Your task to perform on an android device: turn off data saver in the chrome app Image 0: 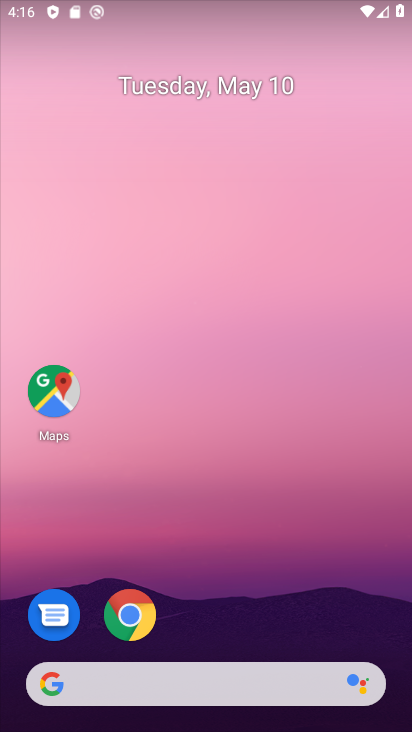
Step 0: click (139, 624)
Your task to perform on an android device: turn off data saver in the chrome app Image 1: 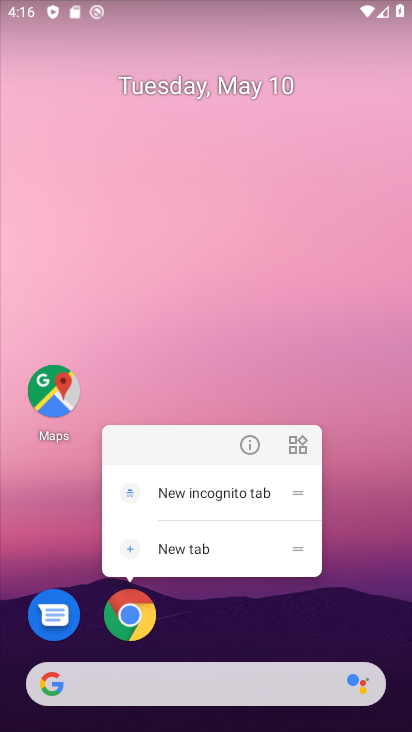
Step 1: click (139, 624)
Your task to perform on an android device: turn off data saver in the chrome app Image 2: 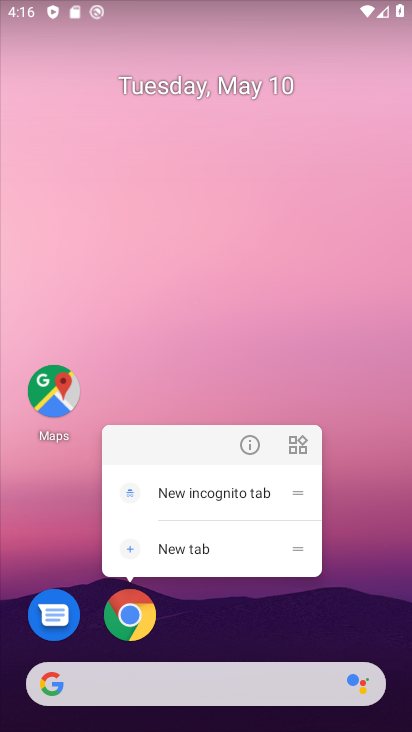
Step 2: click (122, 623)
Your task to perform on an android device: turn off data saver in the chrome app Image 3: 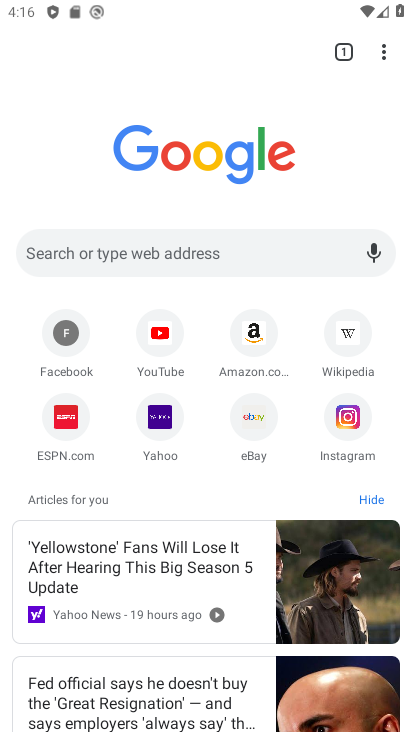
Step 3: drag from (391, 60) to (278, 444)
Your task to perform on an android device: turn off data saver in the chrome app Image 4: 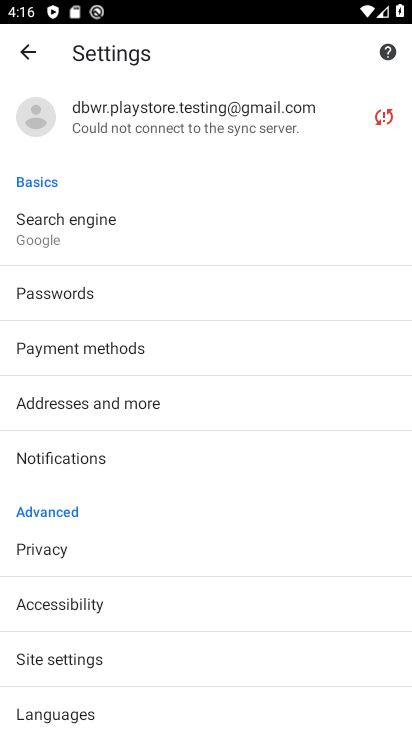
Step 4: drag from (155, 639) to (234, 412)
Your task to perform on an android device: turn off data saver in the chrome app Image 5: 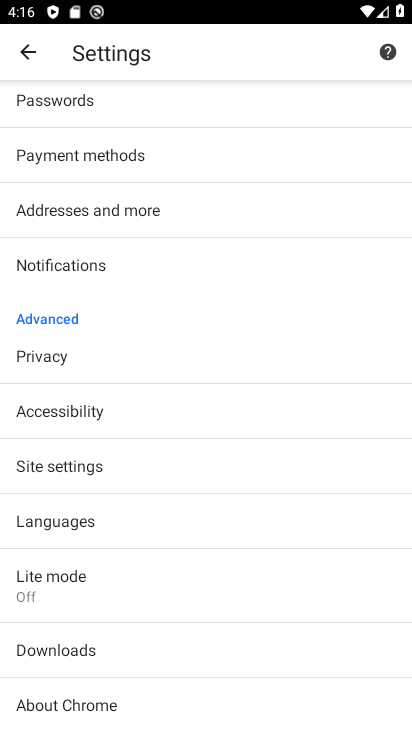
Step 5: click (139, 582)
Your task to perform on an android device: turn off data saver in the chrome app Image 6: 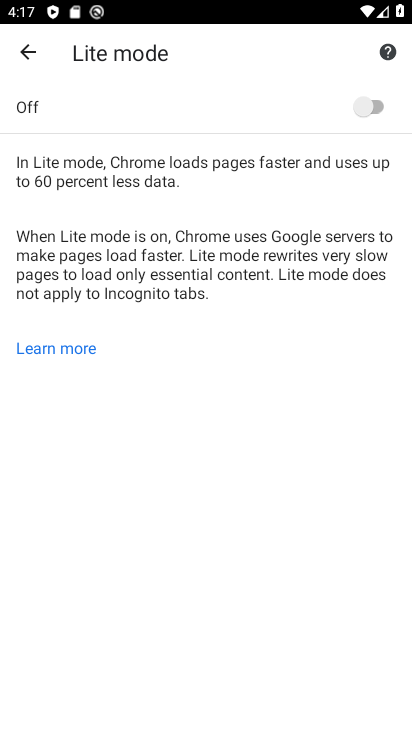
Step 6: task complete